Your task to perform on an android device: Open ESPN.com Image 0: 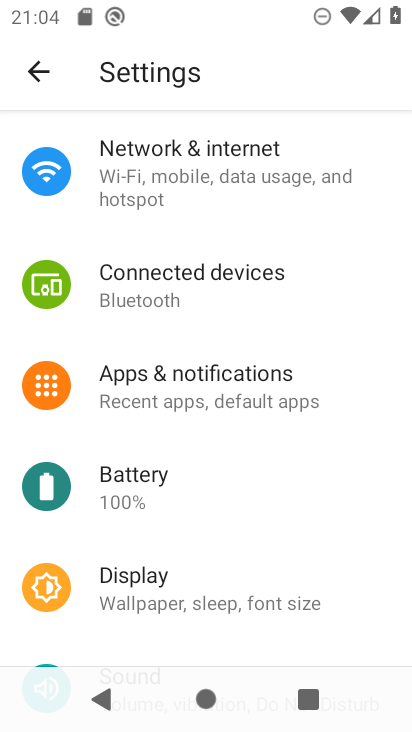
Step 0: press home button
Your task to perform on an android device: Open ESPN.com Image 1: 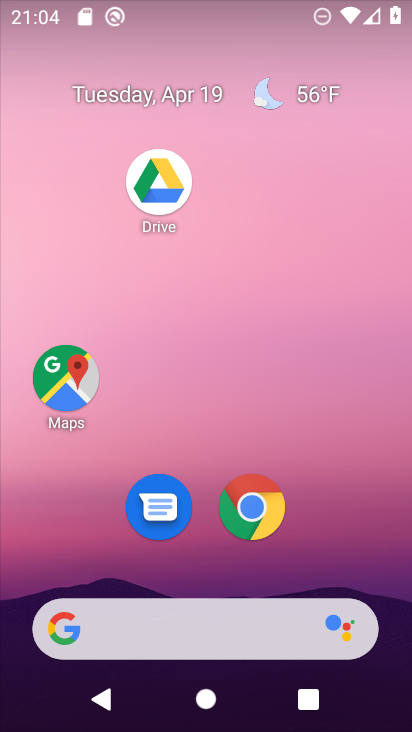
Step 1: click (269, 507)
Your task to perform on an android device: Open ESPN.com Image 2: 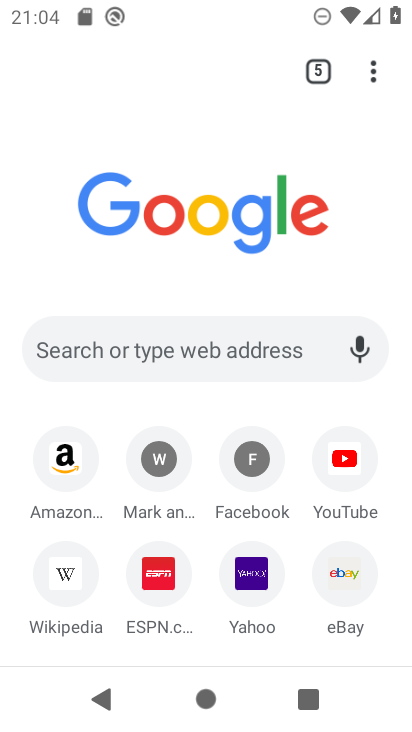
Step 2: click (158, 570)
Your task to perform on an android device: Open ESPN.com Image 3: 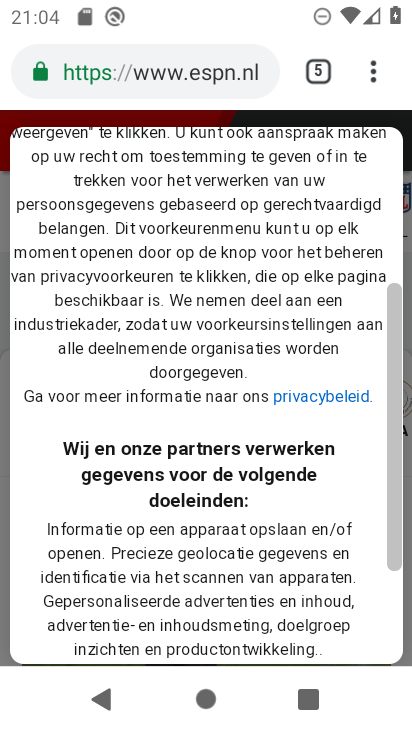
Step 3: task complete